Your task to perform on an android device: Open Google Chrome and click the shortcut for Amazon.com Image 0: 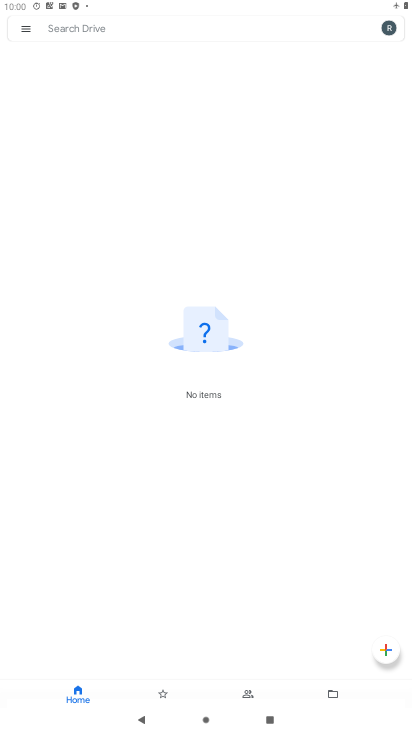
Step 0: drag from (190, 583) to (294, 300)
Your task to perform on an android device: Open Google Chrome and click the shortcut for Amazon.com Image 1: 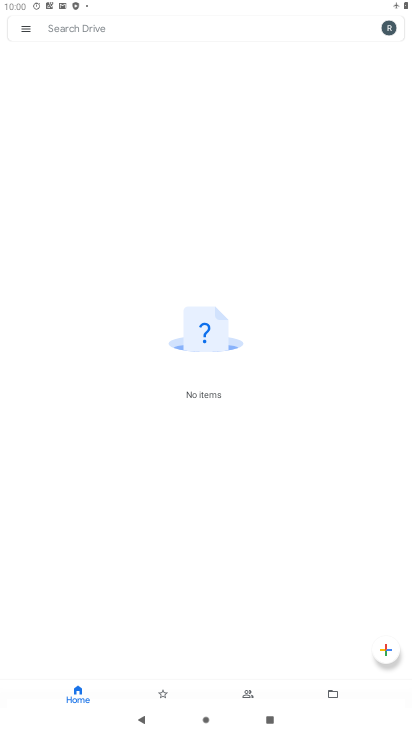
Step 1: press home button
Your task to perform on an android device: Open Google Chrome and click the shortcut for Amazon.com Image 2: 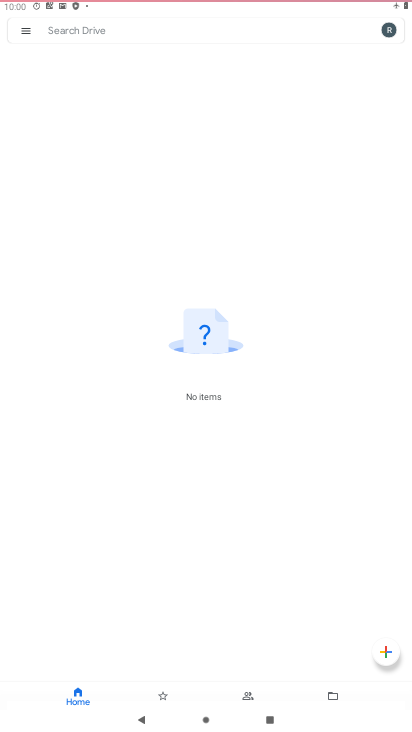
Step 2: drag from (192, 573) to (163, 0)
Your task to perform on an android device: Open Google Chrome and click the shortcut for Amazon.com Image 3: 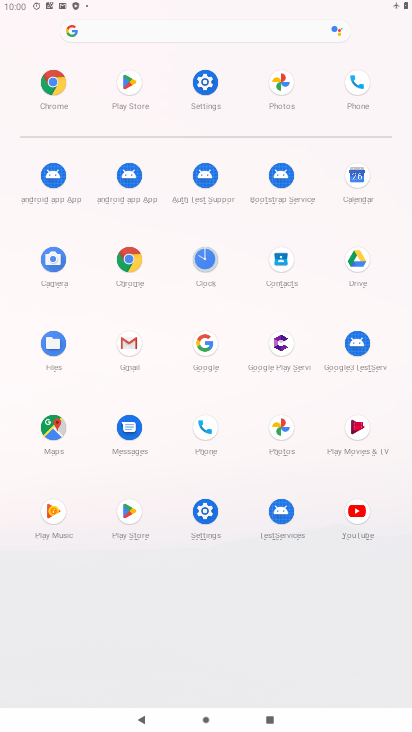
Step 3: click (121, 258)
Your task to perform on an android device: Open Google Chrome and click the shortcut for Amazon.com Image 4: 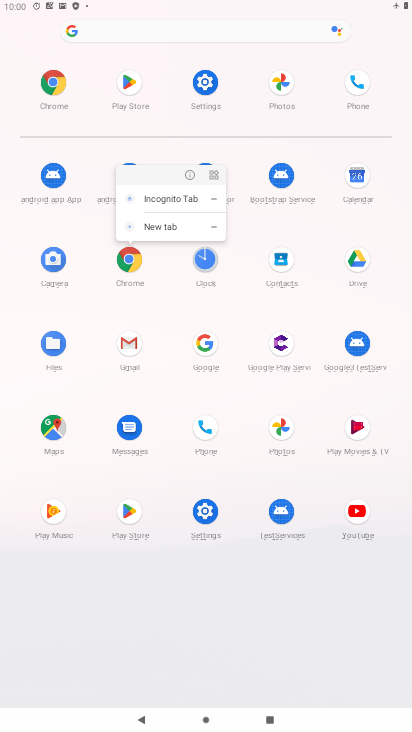
Step 4: click (182, 174)
Your task to perform on an android device: Open Google Chrome and click the shortcut for Amazon.com Image 5: 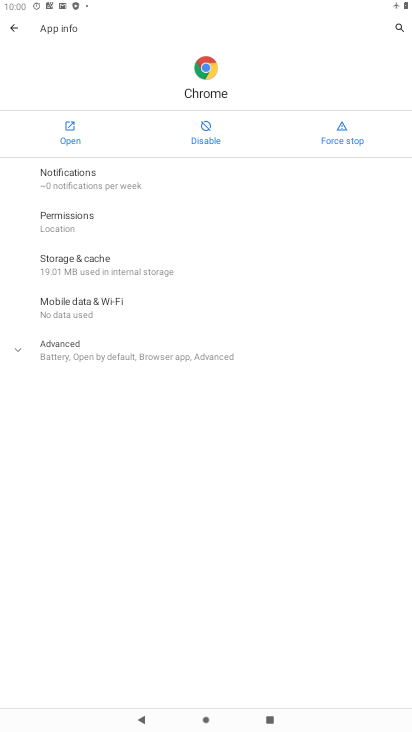
Step 5: click (66, 119)
Your task to perform on an android device: Open Google Chrome and click the shortcut for Amazon.com Image 6: 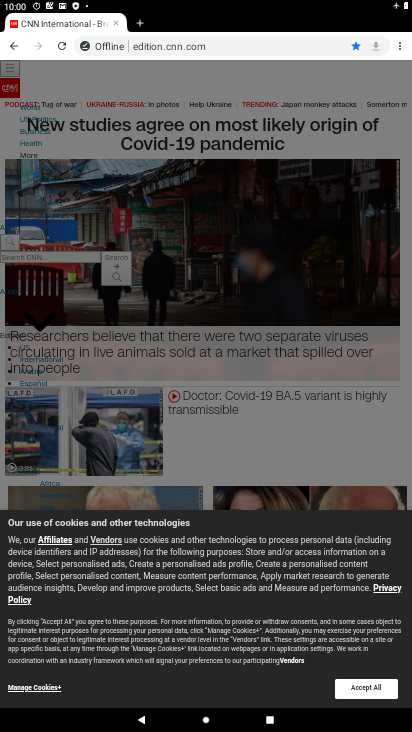
Step 6: drag from (224, 296) to (226, 514)
Your task to perform on an android device: Open Google Chrome and click the shortcut for Amazon.com Image 7: 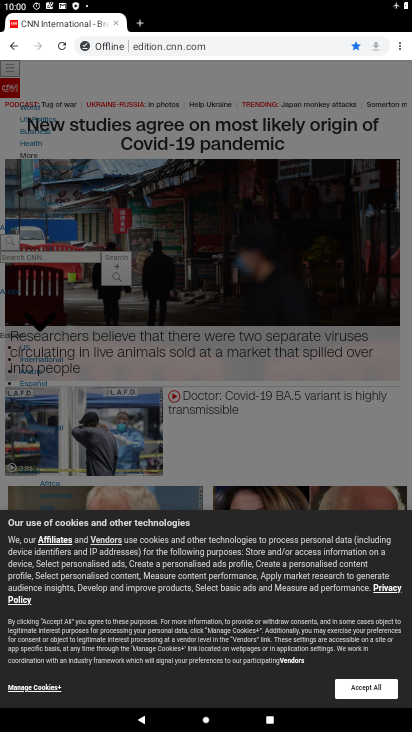
Step 7: click (143, 25)
Your task to perform on an android device: Open Google Chrome and click the shortcut for Amazon.com Image 8: 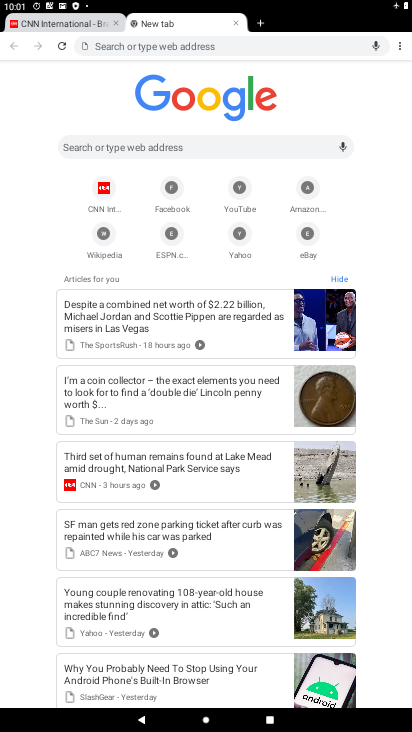
Step 8: click (306, 192)
Your task to perform on an android device: Open Google Chrome and click the shortcut for Amazon.com Image 9: 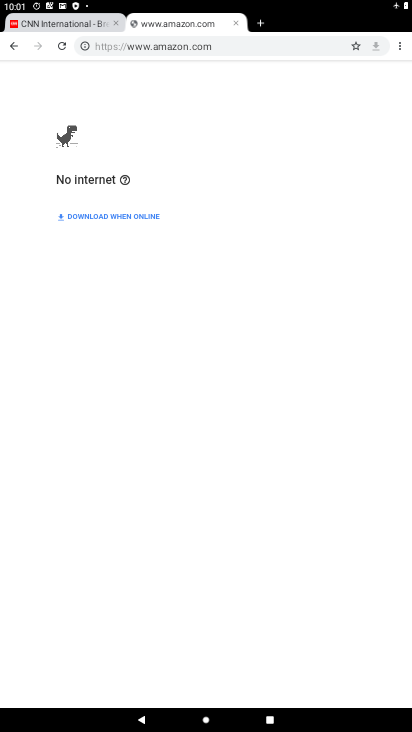
Step 9: task complete